Your task to perform on an android device: turn on notifications settings in the gmail app Image 0: 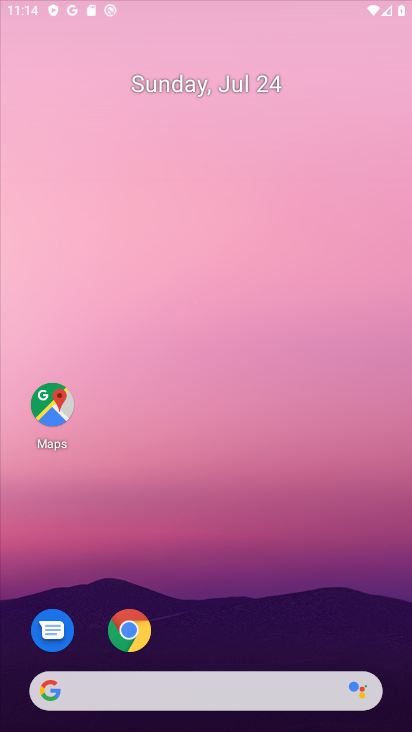
Step 0: press home button
Your task to perform on an android device: turn on notifications settings in the gmail app Image 1: 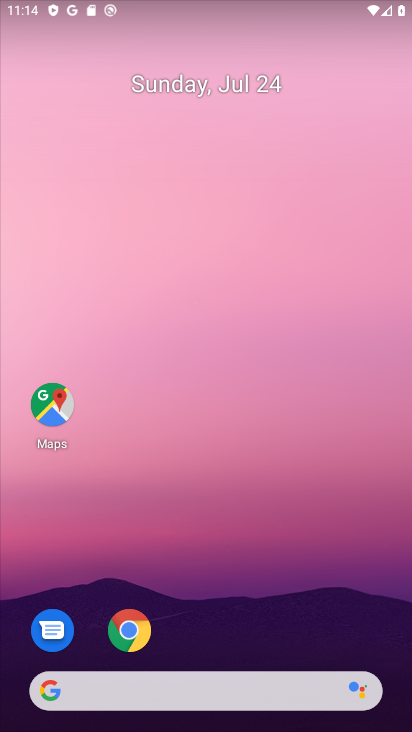
Step 1: drag from (243, 644) to (234, 7)
Your task to perform on an android device: turn on notifications settings in the gmail app Image 2: 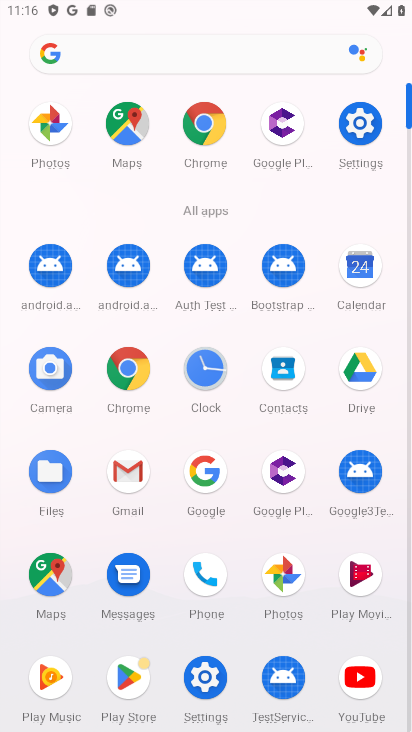
Step 2: click (206, 647)
Your task to perform on an android device: turn on notifications settings in the gmail app Image 3: 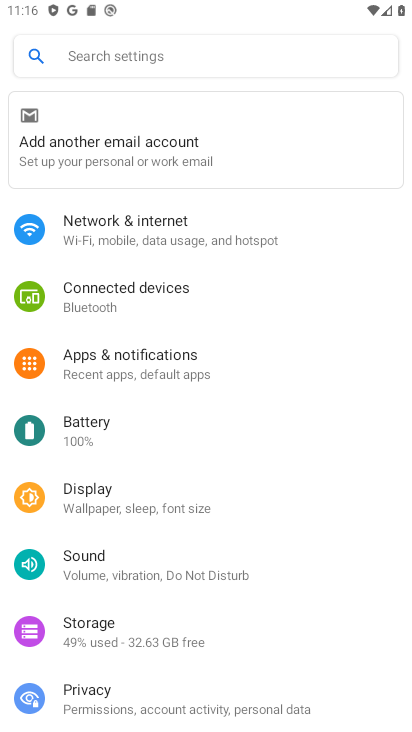
Step 3: press home button
Your task to perform on an android device: turn on notifications settings in the gmail app Image 4: 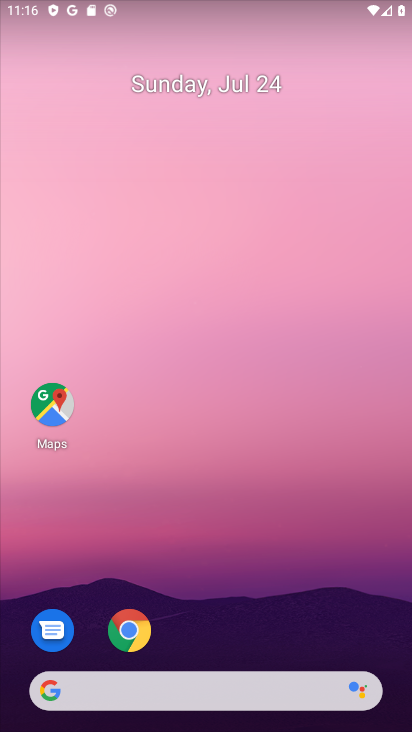
Step 4: drag from (231, 658) to (242, 0)
Your task to perform on an android device: turn on notifications settings in the gmail app Image 5: 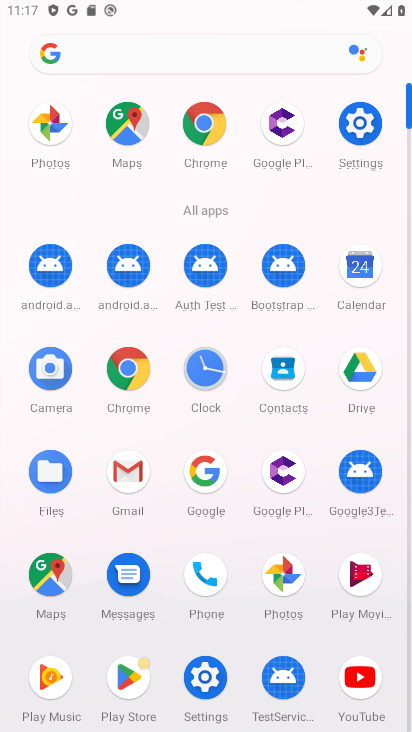
Step 5: click (201, 668)
Your task to perform on an android device: turn on notifications settings in the gmail app Image 6: 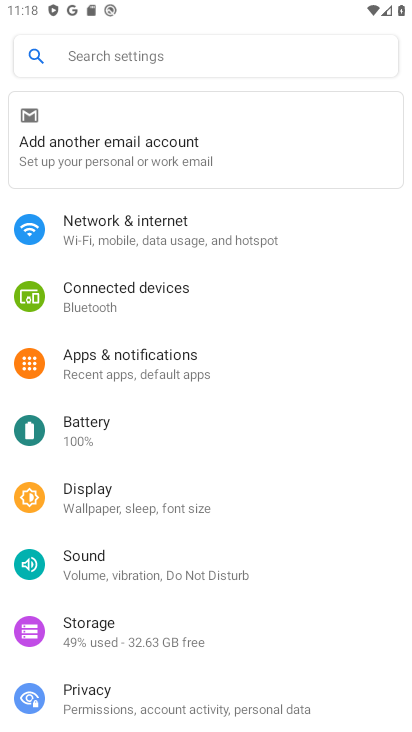
Step 6: press home button
Your task to perform on an android device: turn on notifications settings in the gmail app Image 7: 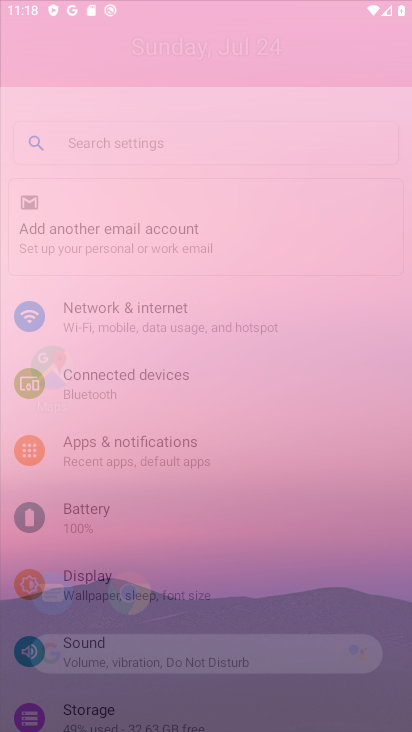
Step 7: drag from (308, 641) to (289, 312)
Your task to perform on an android device: turn on notifications settings in the gmail app Image 8: 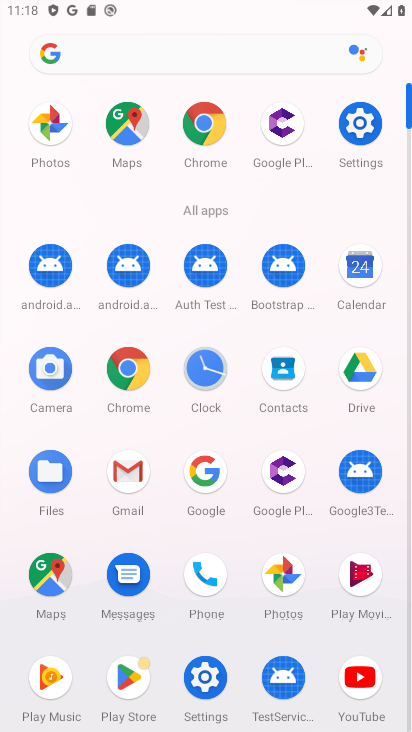
Step 8: click (151, 468)
Your task to perform on an android device: turn on notifications settings in the gmail app Image 9: 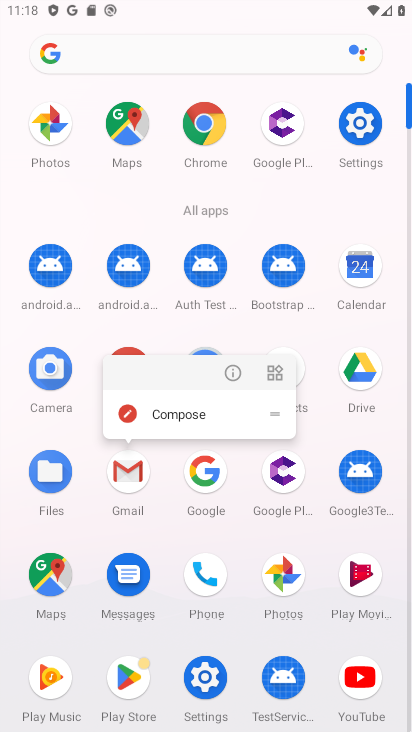
Step 9: click (243, 380)
Your task to perform on an android device: turn on notifications settings in the gmail app Image 10: 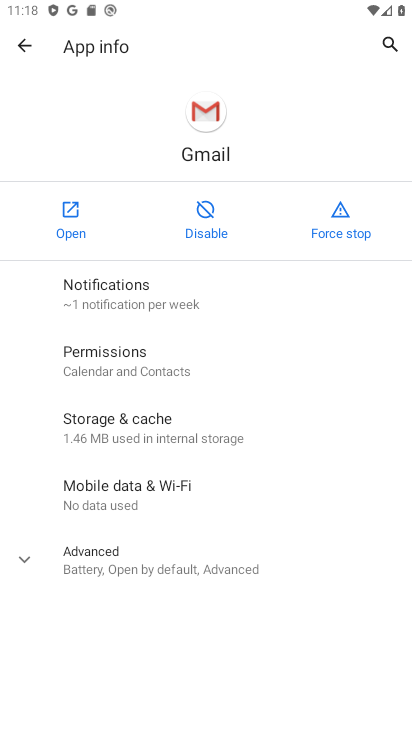
Step 10: click (154, 291)
Your task to perform on an android device: turn on notifications settings in the gmail app Image 11: 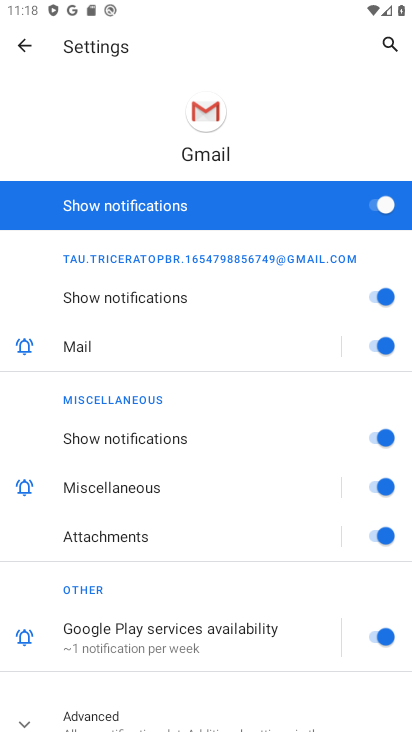
Step 11: task complete